Your task to perform on an android device: delete the emails in spam in the gmail app Image 0: 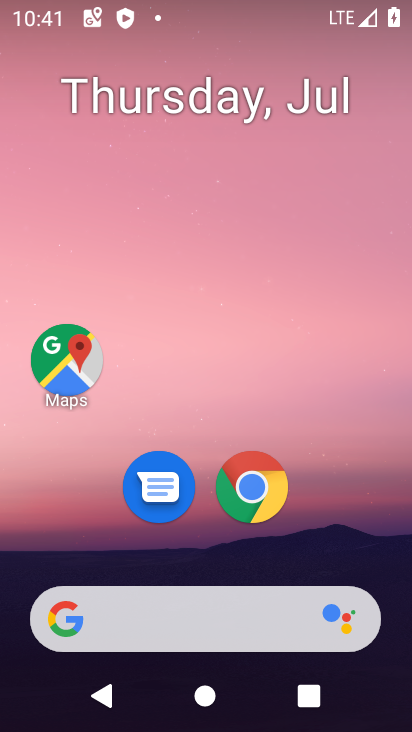
Step 0: drag from (221, 428) to (318, 13)
Your task to perform on an android device: delete the emails in spam in the gmail app Image 1: 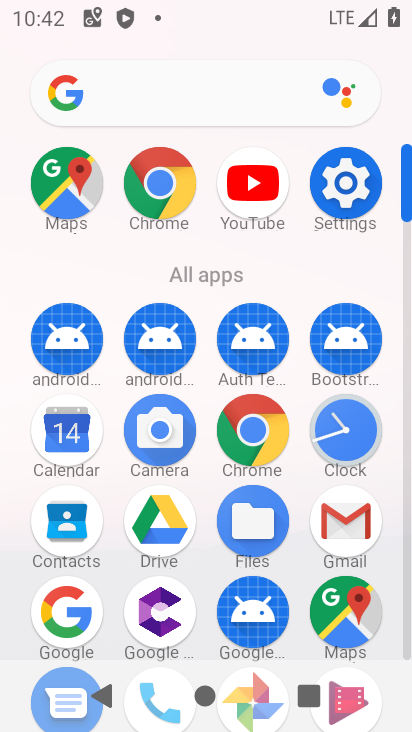
Step 1: click (354, 534)
Your task to perform on an android device: delete the emails in spam in the gmail app Image 2: 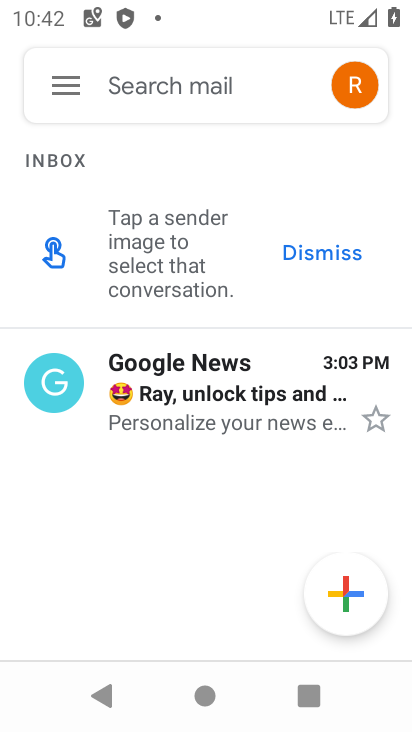
Step 2: click (58, 77)
Your task to perform on an android device: delete the emails in spam in the gmail app Image 3: 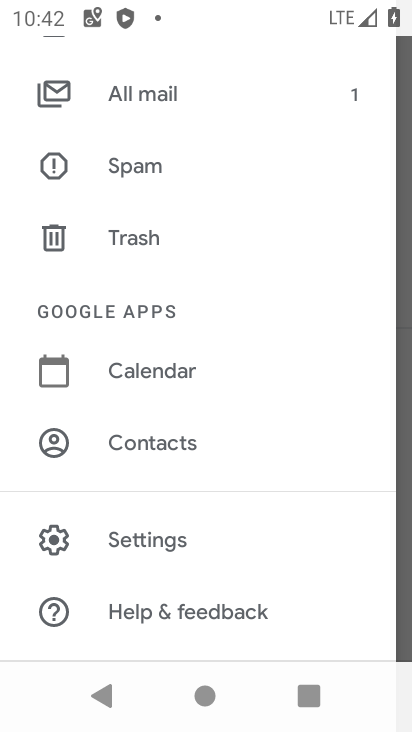
Step 3: click (173, 153)
Your task to perform on an android device: delete the emails in spam in the gmail app Image 4: 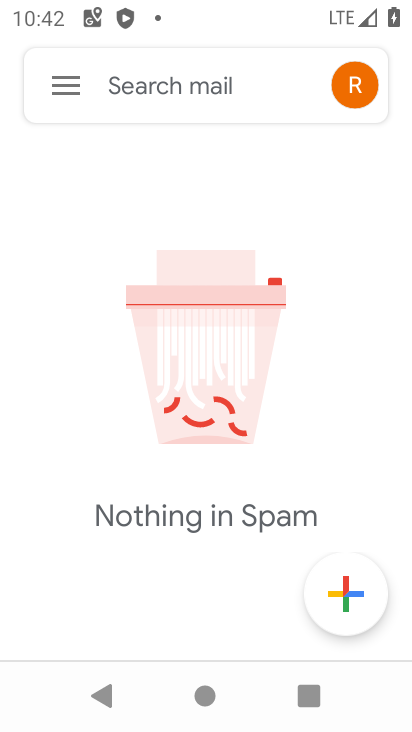
Step 4: task complete